Your task to perform on an android device: Show me the alarms in the clock app Image 0: 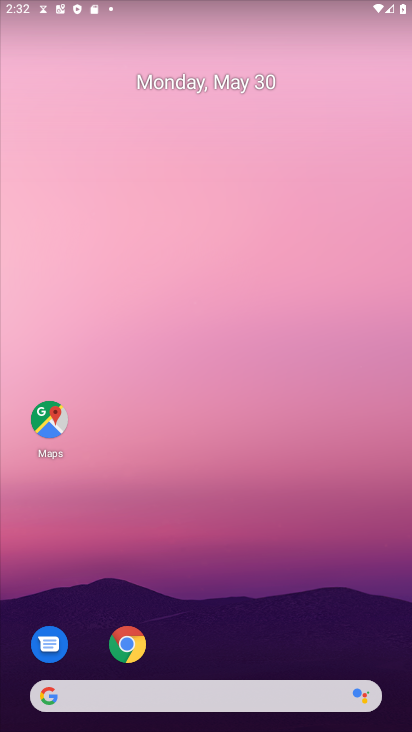
Step 0: drag from (325, 645) to (253, 170)
Your task to perform on an android device: Show me the alarms in the clock app Image 1: 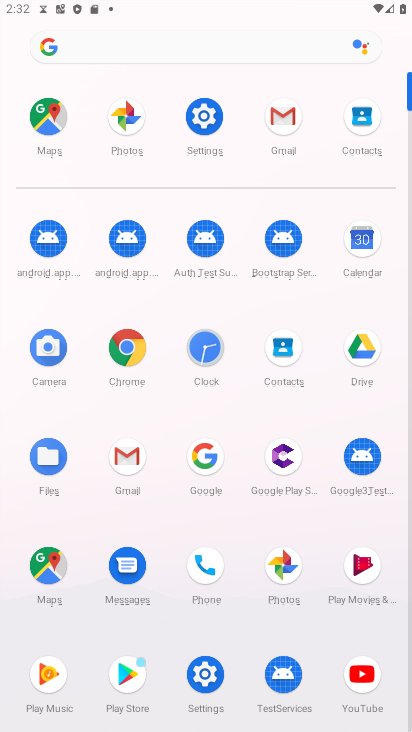
Step 1: click (217, 337)
Your task to perform on an android device: Show me the alarms in the clock app Image 2: 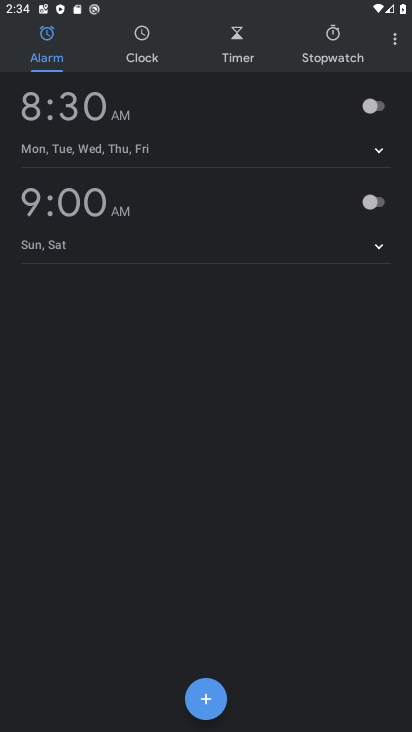
Step 2: task complete